Your task to perform on an android device: check the backup settings in the google photos Image 0: 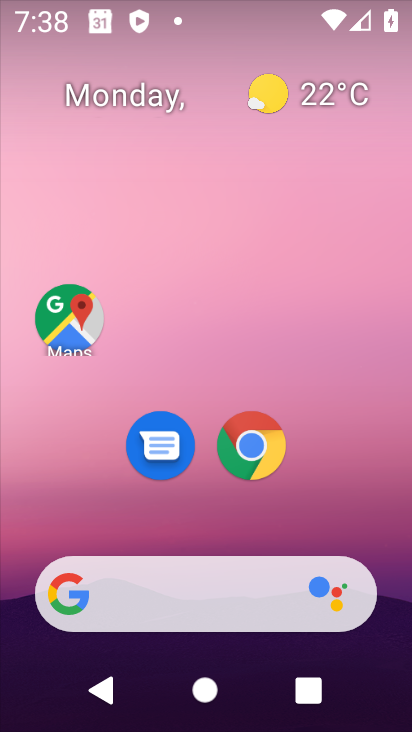
Step 0: drag from (356, 493) to (278, 141)
Your task to perform on an android device: check the backup settings in the google photos Image 1: 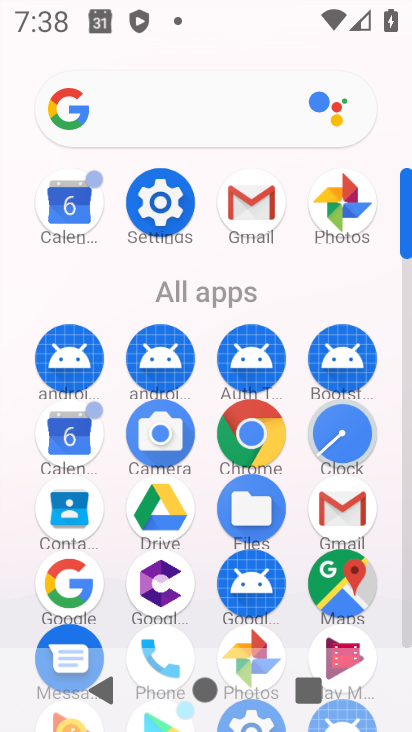
Step 1: click (357, 206)
Your task to perform on an android device: check the backup settings in the google photos Image 2: 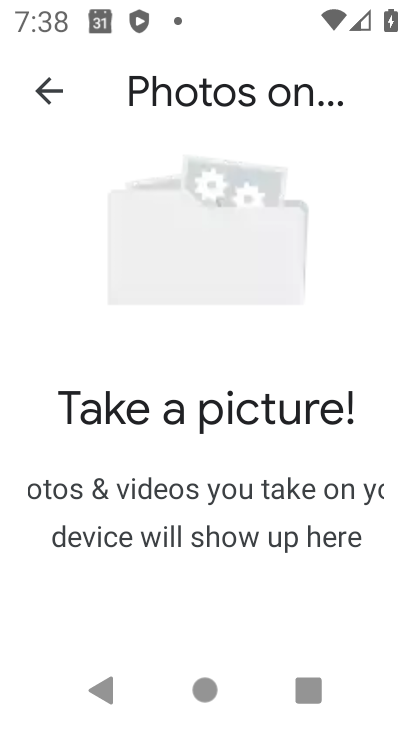
Step 2: press back button
Your task to perform on an android device: check the backup settings in the google photos Image 3: 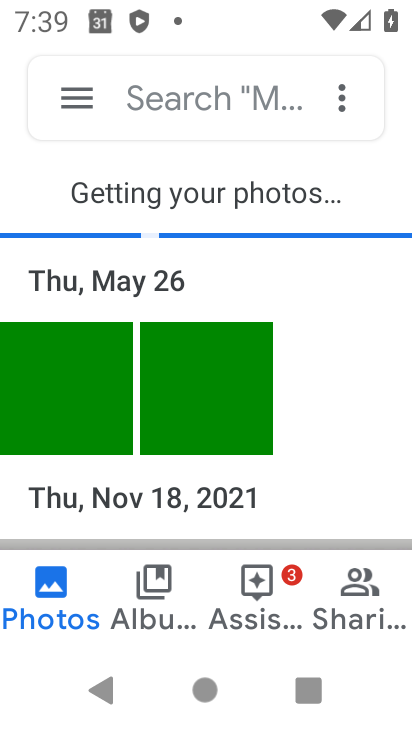
Step 3: click (74, 91)
Your task to perform on an android device: check the backup settings in the google photos Image 4: 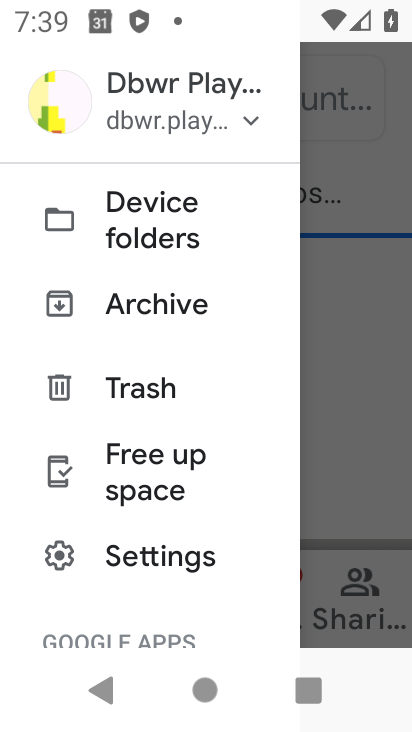
Step 4: click (150, 553)
Your task to perform on an android device: check the backup settings in the google photos Image 5: 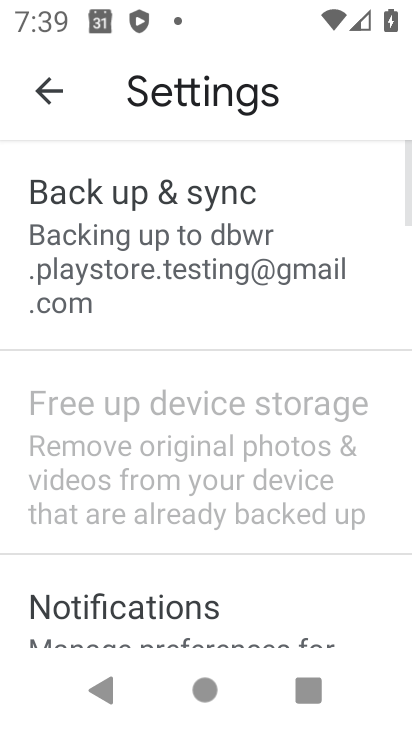
Step 5: click (108, 209)
Your task to perform on an android device: check the backup settings in the google photos Image 6: 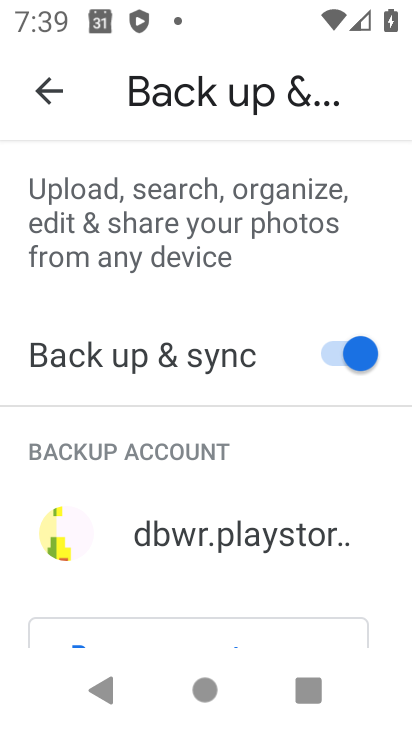
Step 6: task complete